Your task to perform on an android device: Open calendar and show me the second week of next month Image 0: 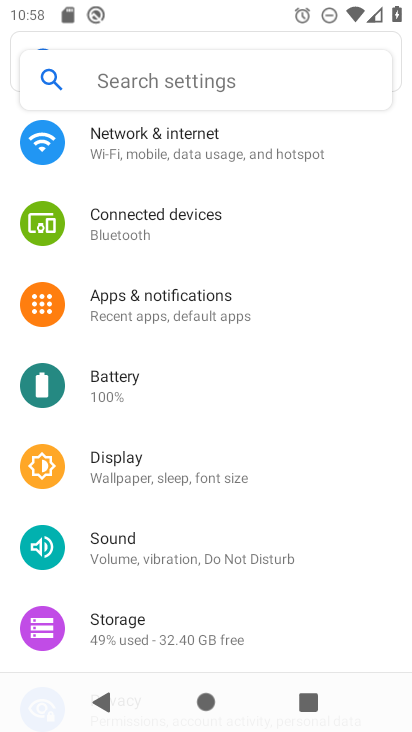
Step 0: press back button
Your task to perform on an android device: Open calendar and show me the second week of next month Image 1: 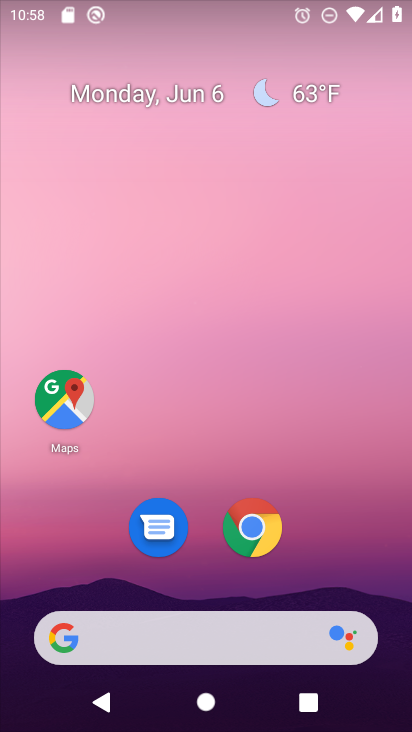
Step 1: drag from (350, 566) to (330, 189)
Your task to perform on an android device: Open calendar and show me the second week of next month Image 2: 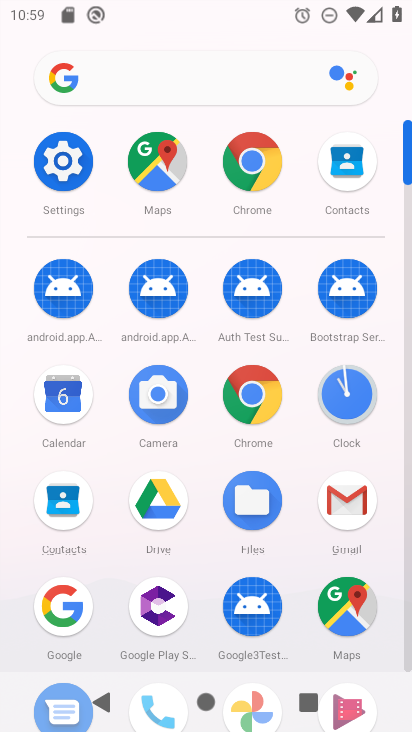
Step 2: click (68, 404)
Your task to perform on an android device: Open calendar and show me the second week of next month Image 3: 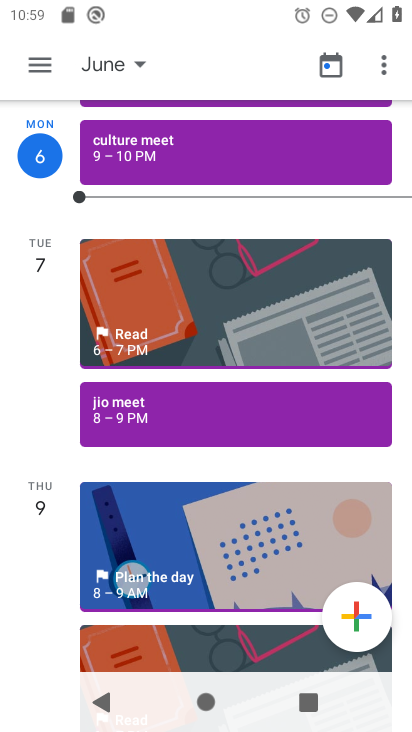
Step 3: click (142, 62)
Your task to perform on an android device: Open calendar and show me the second week of next month Image 4: 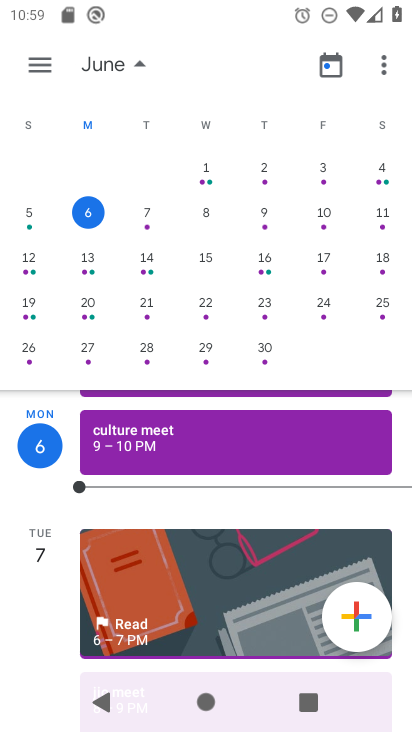
Step 4: drag from (388, 145) to (17, 146)
Your task to perform on an android device: Open calendar and show me the second week of next month Image 5: 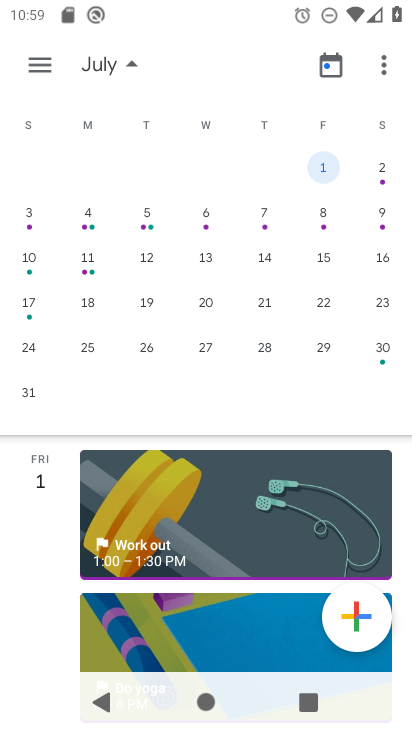
Step 5: click (77, 263)
Your task to perform on an android device: Open calendar and show me the second week of next month Image 6: 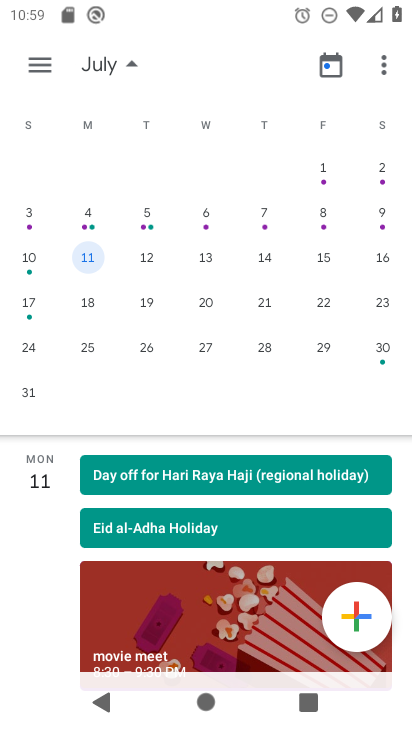
Step 6: task complete